Your task to perform on an android device: turn on sleep mode Image 0: 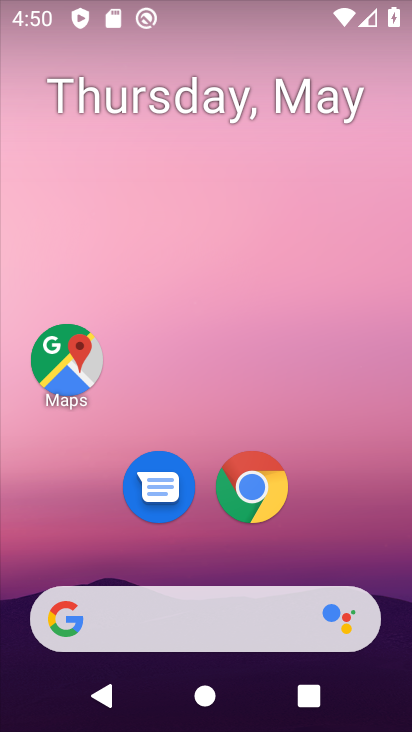
Step 0: drag from (299, 510) to (278, 0)
Your task to perform on an android device: turn on sleep mode Image 1: 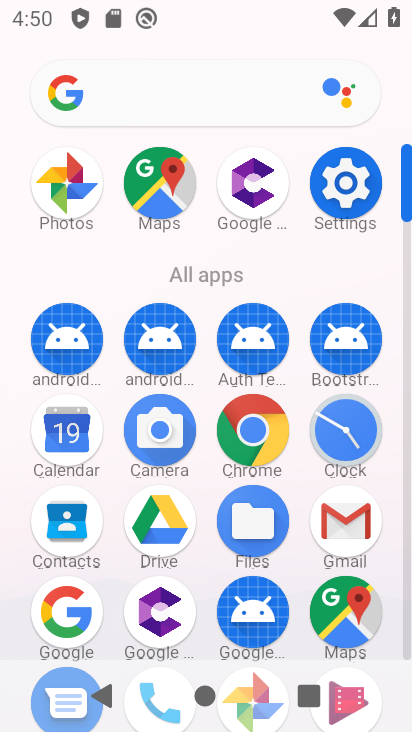
Step 1: click (343, 187)
Your task to perform on an android device: turn on sleep mode Image 2: 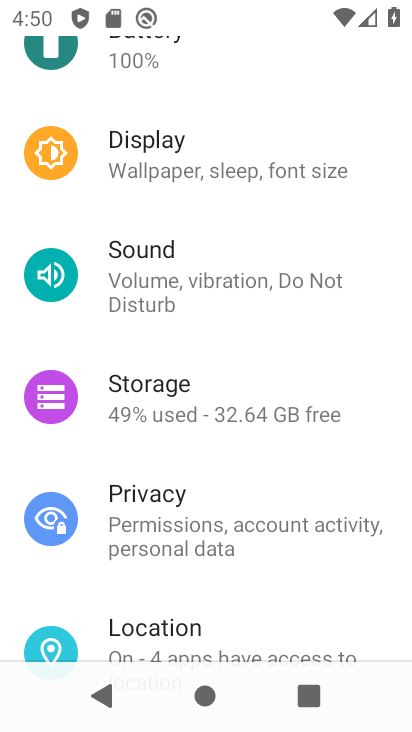
Step 2: click (267, 162)
Your task to perform on an android device: turn on sleep mode Image 3: 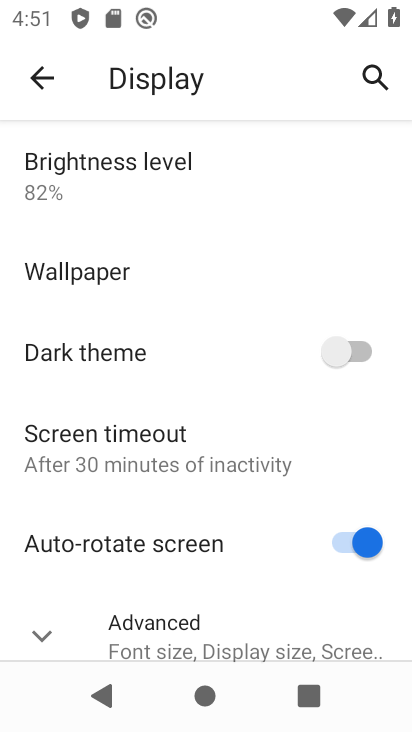
Step 3: drag from (209, 515) to (245, 210)
Your task to perform on an android device: turn on sleep mode Image 4: 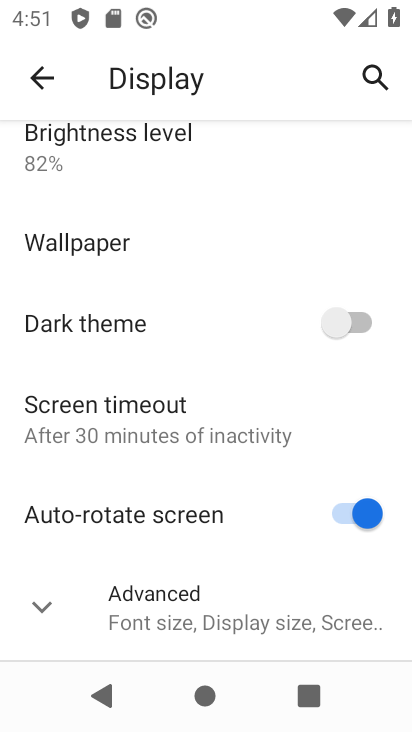
Step 4: click (45, 603)
Your task to perform on an android device: turn on sleep mode Image 5: 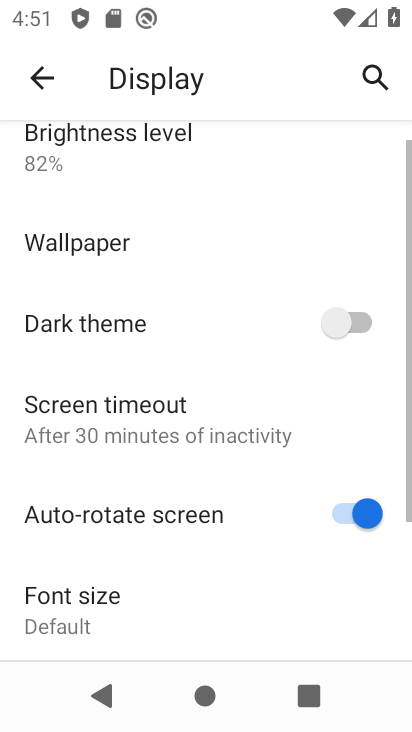
Step 5: drag from (144, 507) to (221, 160)
Your task to perform on an android device: turn on sleep mode Image 6: 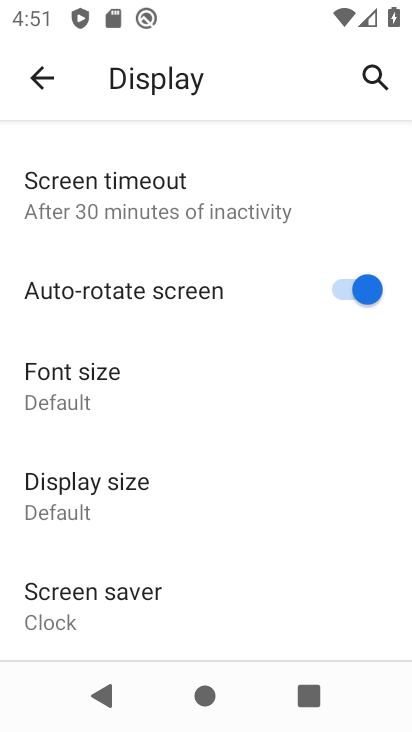
Step 6: click (183, 196)
Your task to perform on an android device: turn on sleep mode Image 7: 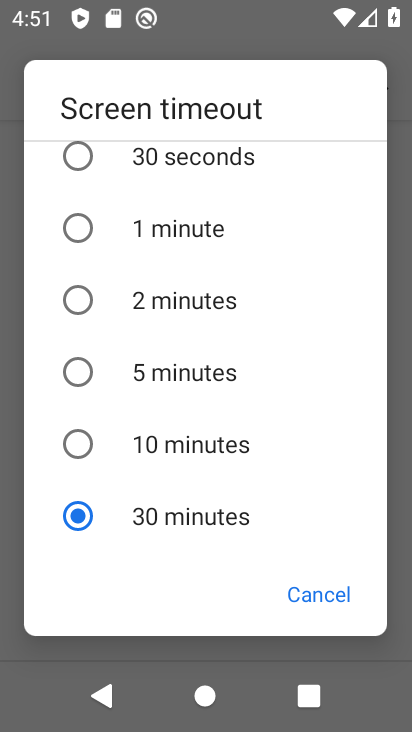
Step 7: drag from (252, 227) to (296, 246)
Your task to perform on an android device: turn on sleep mode Image 8: 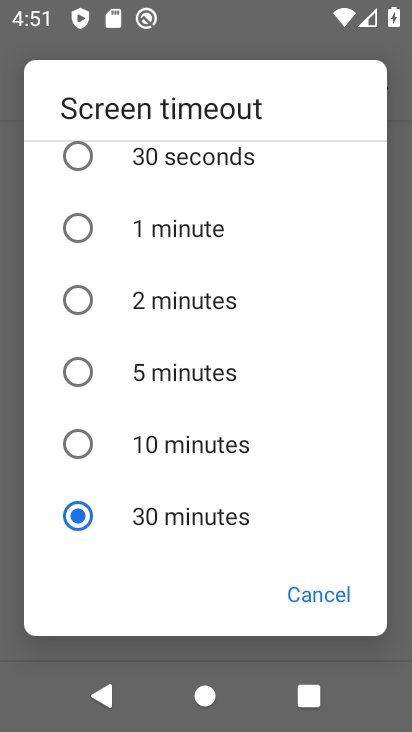
Step 8: click (330, 591)
Your task to perform on an android device: turn on sleep mode Image 9: 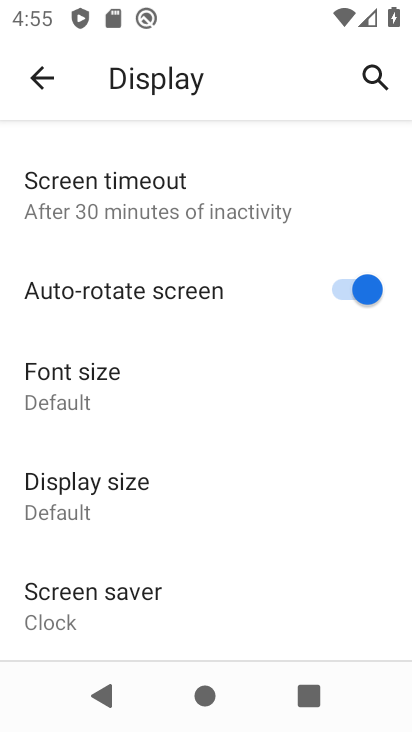
Step 9: task complete